Your task to perform on an android device: Look up the best rated desk lamps on IKEA Image 0: 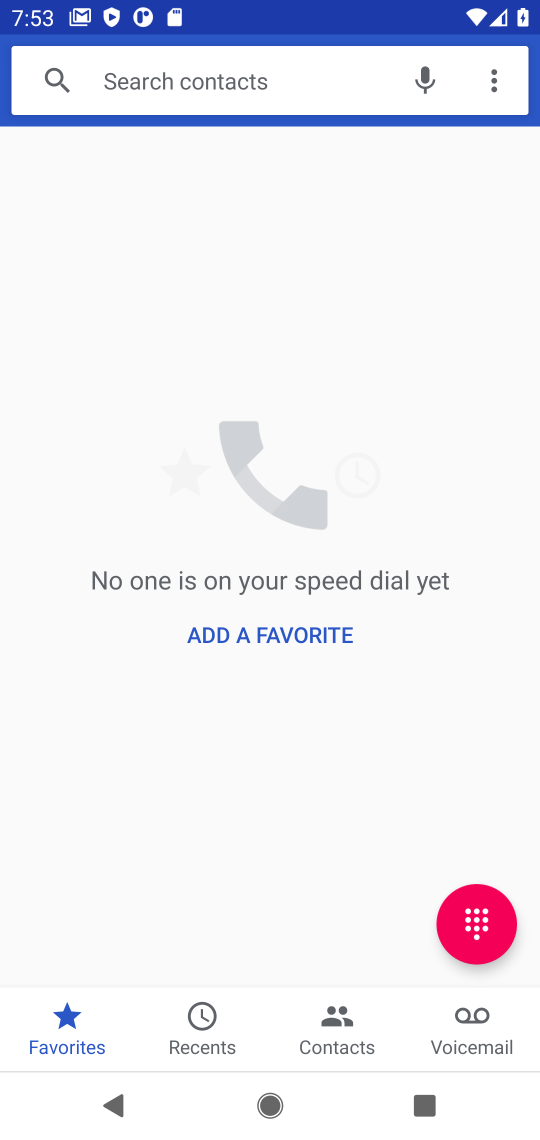
Step 0: press home button
Your task to perform on an android device: Look up the best rated desk lamps on IKEA Image 1: 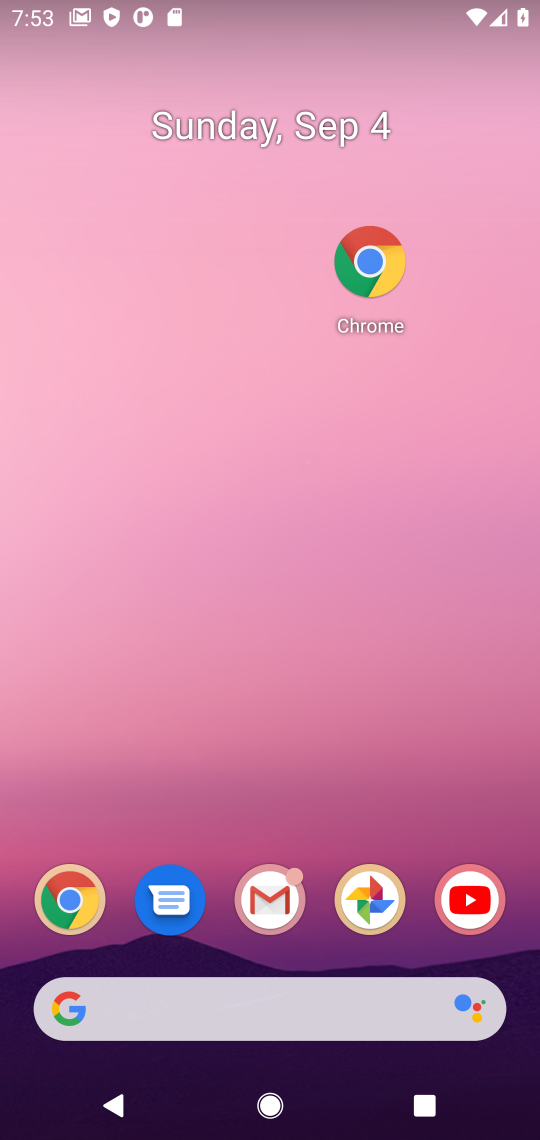
Step 1: drag from (303, 962) to (235, 65)
Your task to perform on an android device: Look up the best rated desk lamps on IKEA Image 2: 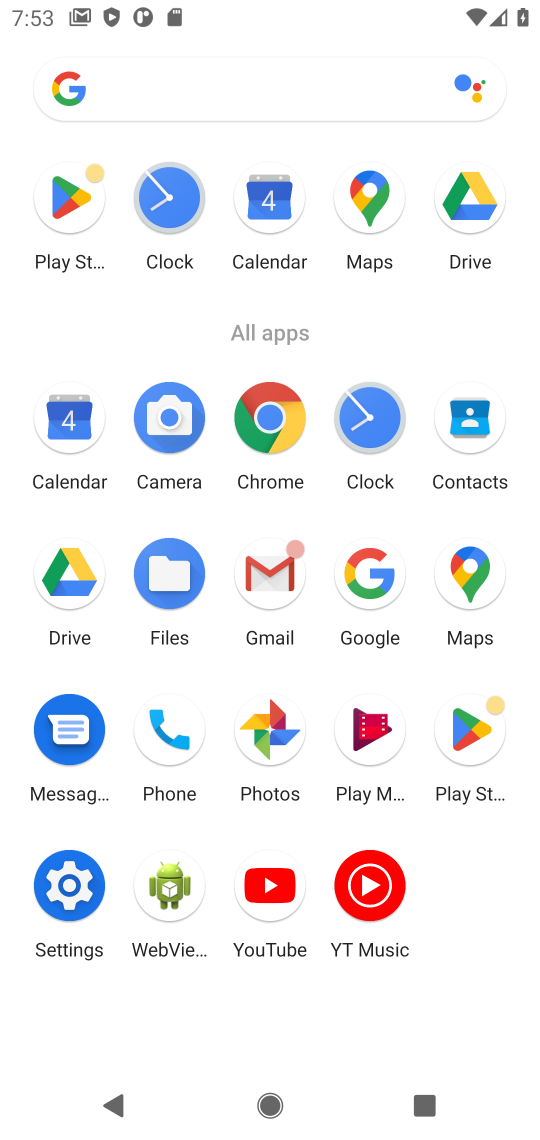
Step 2: click (248, 403)
Your task to perform on an android device: Look up the best rated desk lamps on IKEA Image 3: 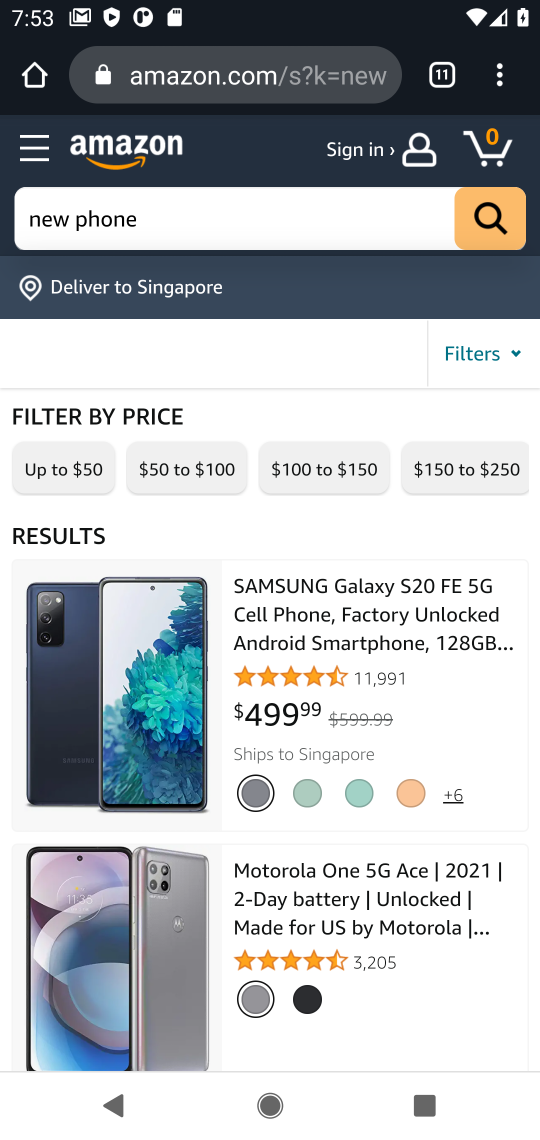
Step 3: click (439, 69)
Your task to perform on an android device: Look up the best rated desk lamps on IKEA Image 4: 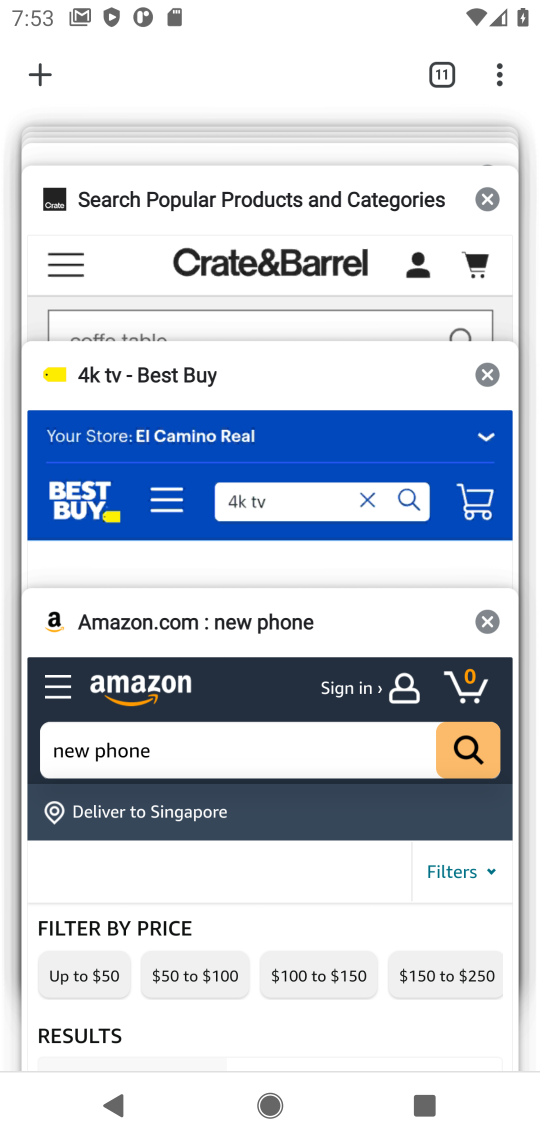
Step 4: click (40, 81)
Your task to perform on an android device: Look up the best rated desk lamps on IKEA Image 5: 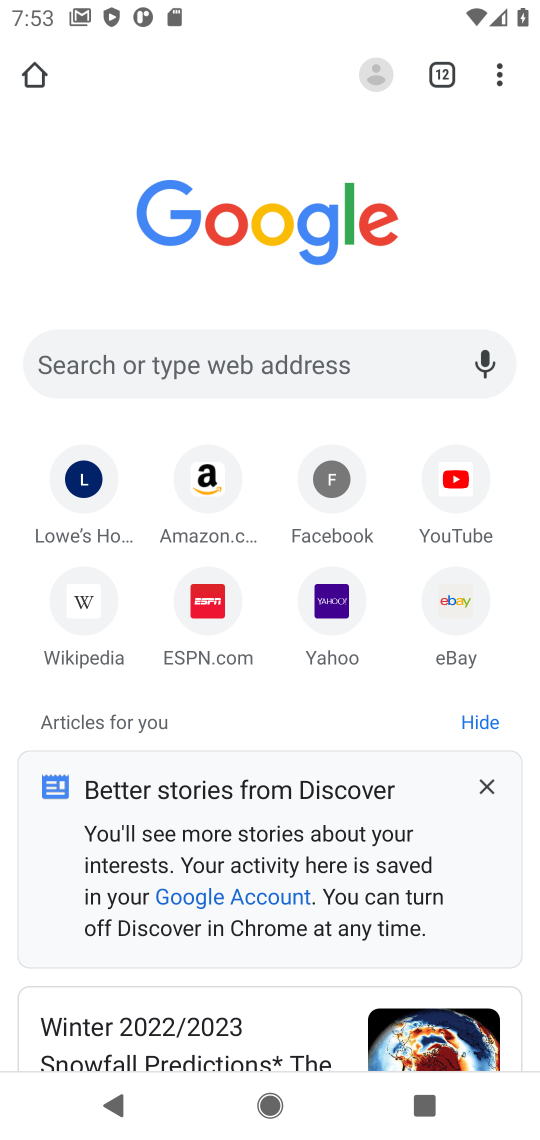
Step 5: click (264, 355)
Your task to perform on an android device: Look up the best rated desk lamps on IKEA Image 6: 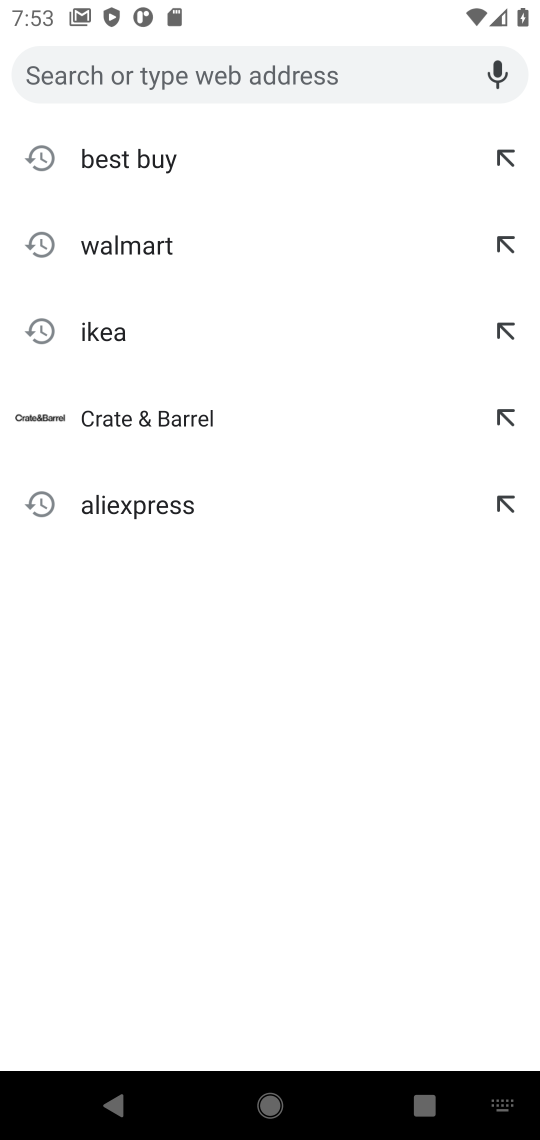
Step 6: type "Ikea"
Your task to perform on an android device: Look up the best rated desk lamps on IKEA Image 7: 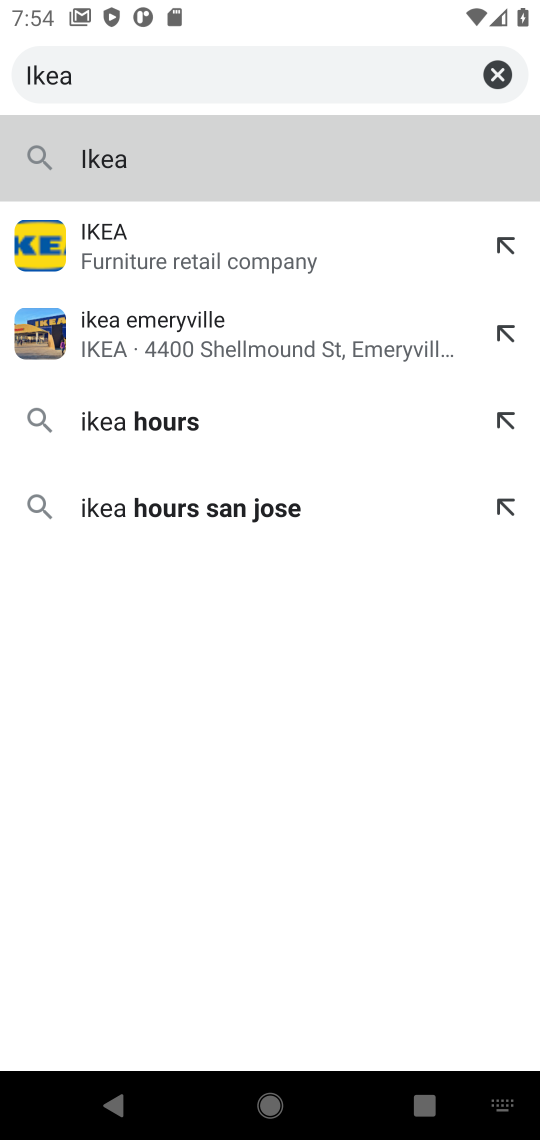
Step 7: click (209, 152)
Your task to perform on an android device: Look up the best rated desk lamps on IKEA Image 8: 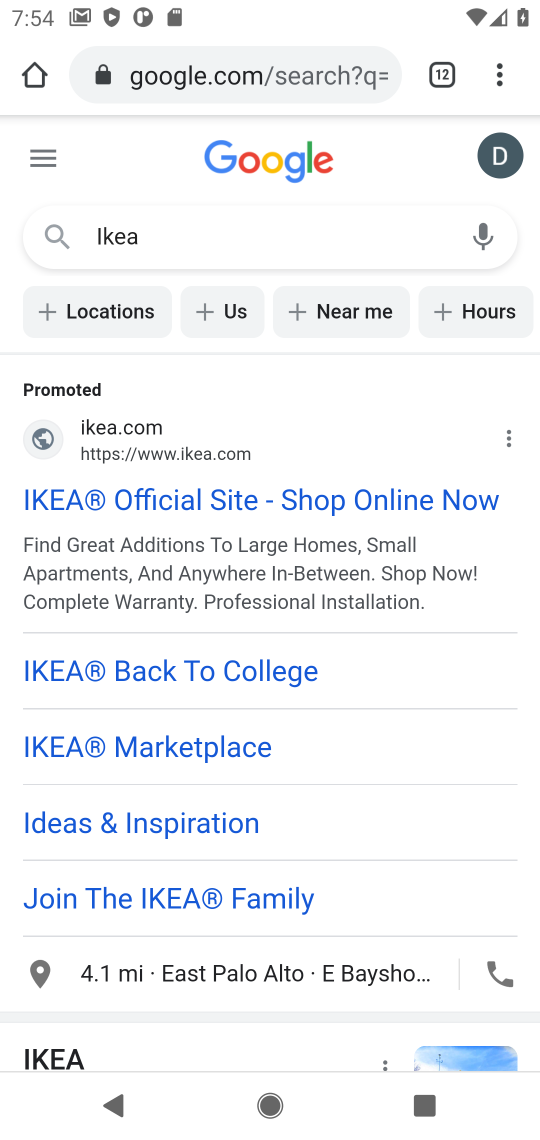
Step 8: click (264, 512)
Your task to perform on an android device: Look up the best rated desk lamps on IKEA Image 9: 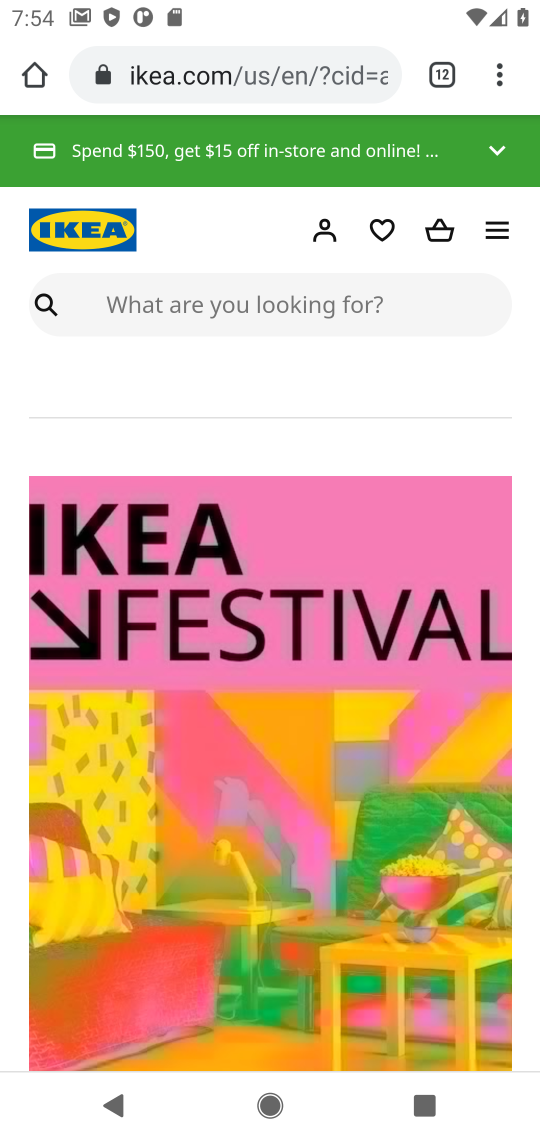
Step 9: click (200, 294)
Your task to perform on an android device: Look up the best rated desk lamps on IKEA Image 10: 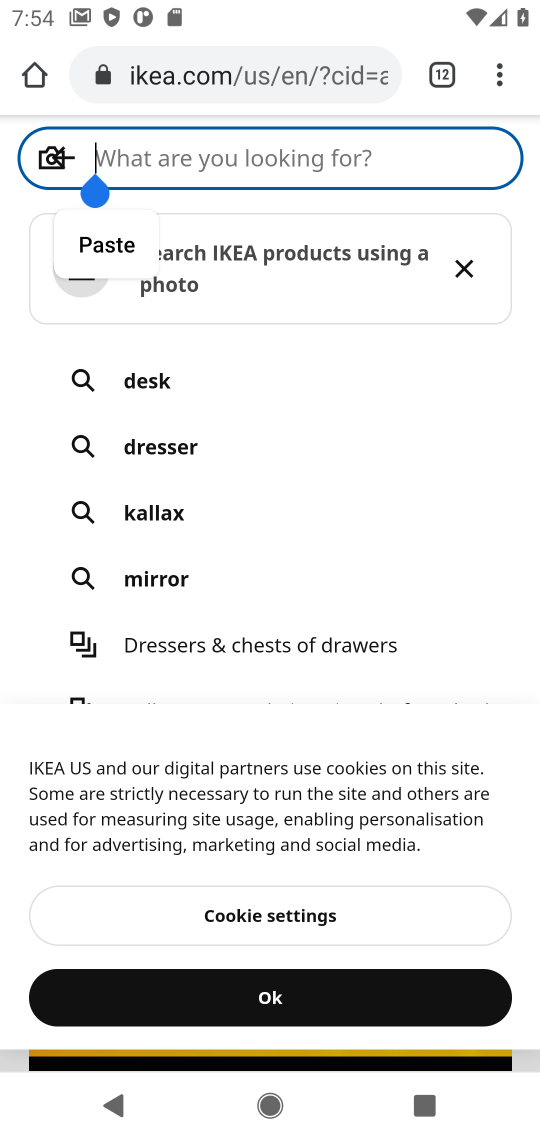
Step 10: type "the best rated desk lamps "
Your task to perform on an android device: Look up the best rated desk lamps on IKEA Image 11: 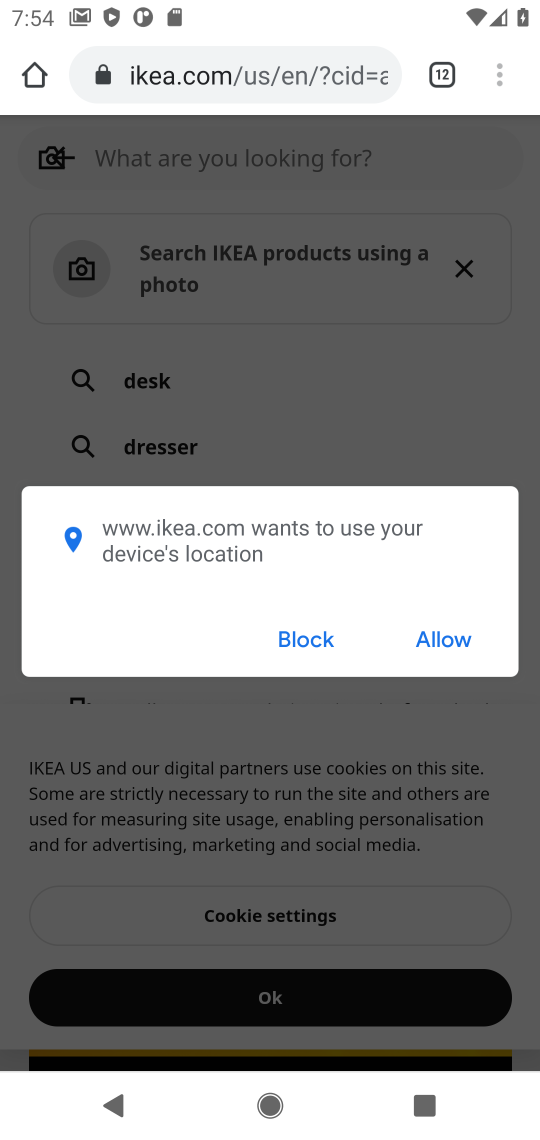
Step 11: click (317, 641)
Your task to perform on an android device: Look up the best rated desk lamps on IKEA Image 12: 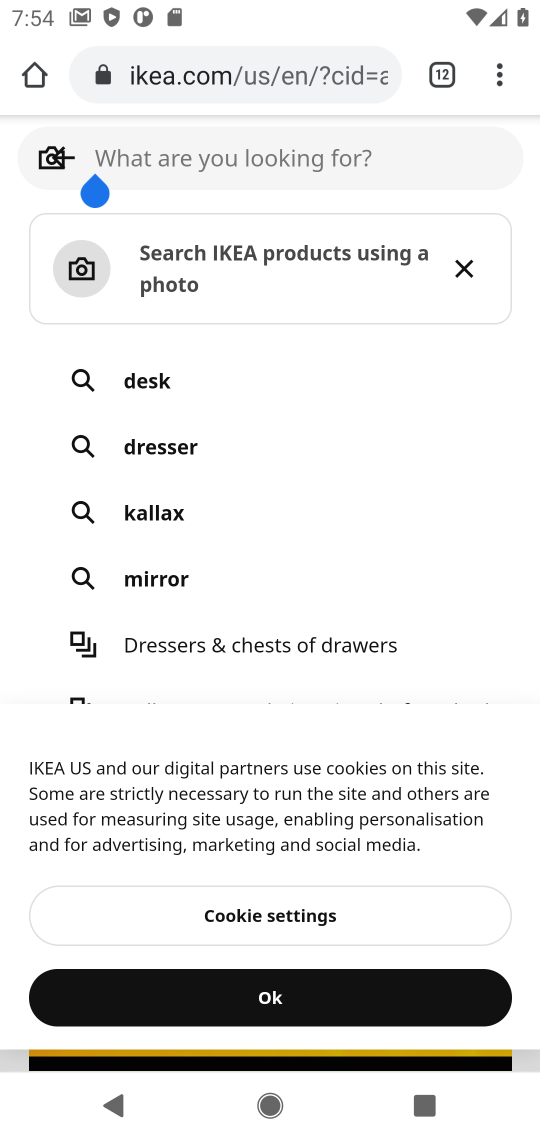
Step 12: click (206, 175)
Your task to perform on an android device: Look up the best rated desk lamps on IKEA Image 13: 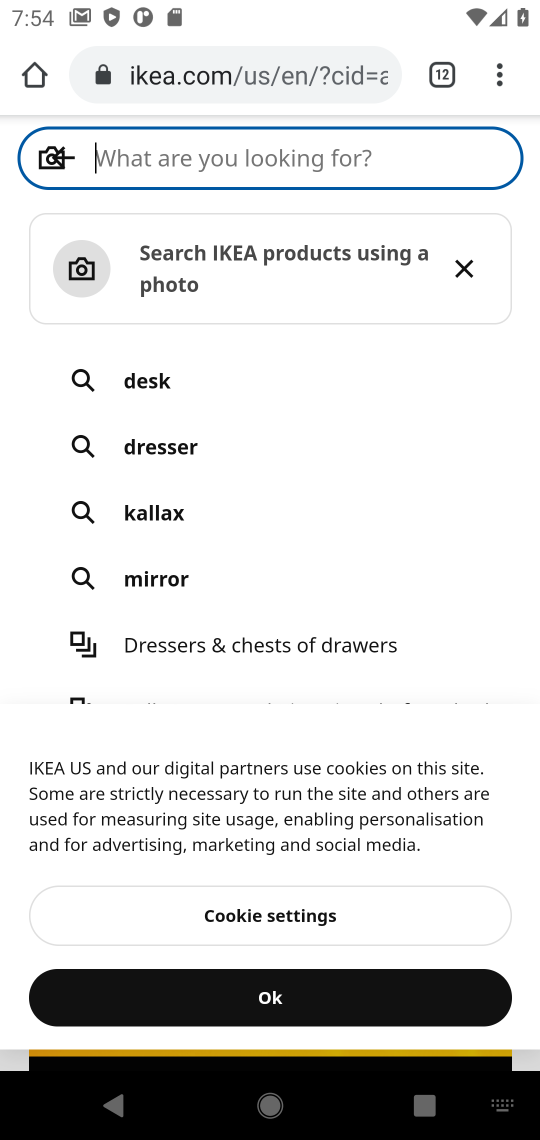
Step 13: drag from (303, 1135) to (86, 1123)
Your task to perform on an android device: Look up the best rated desk lamps on IKEA Image 14: 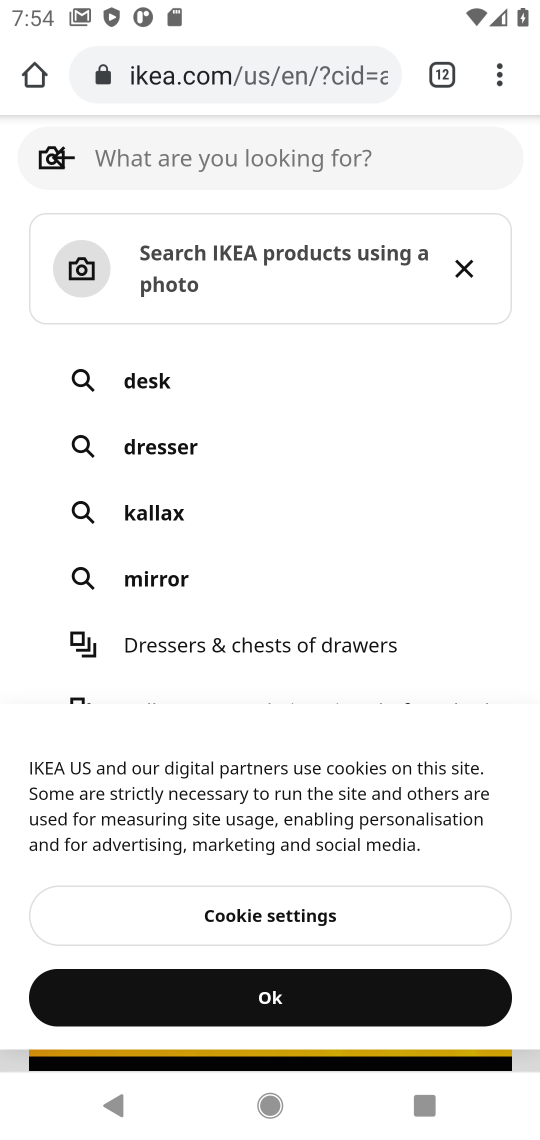
Step 14: click (293, 152)
Your task to perform on an android device: Look up the best rated desk lamps on IKEA Image 15: 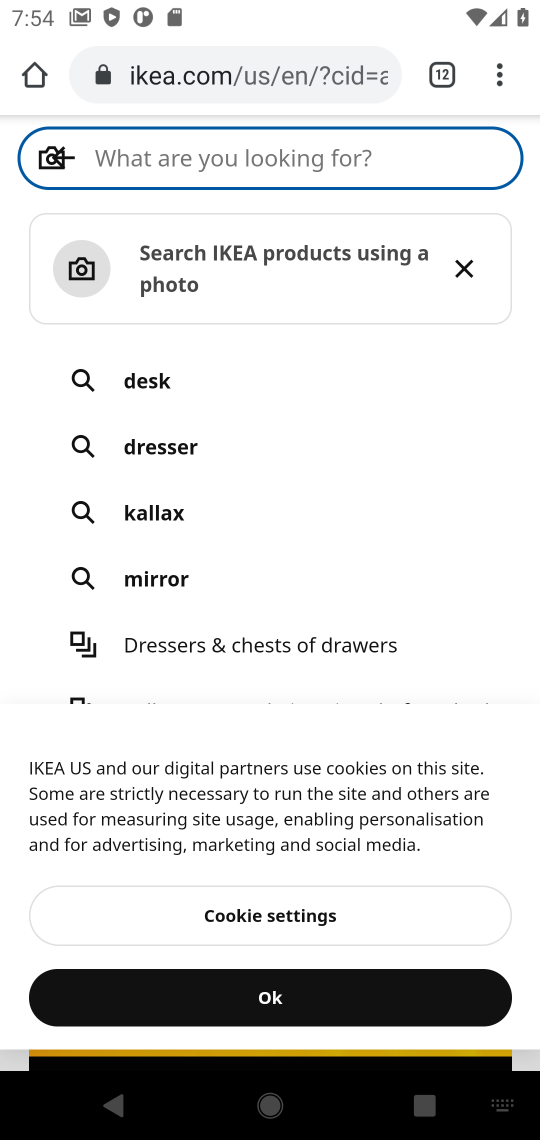
Step 15: type "the best rated desk lamps"
Your task to perform on an android device: Look up the best rated desk lamps on IKEA Image 16: 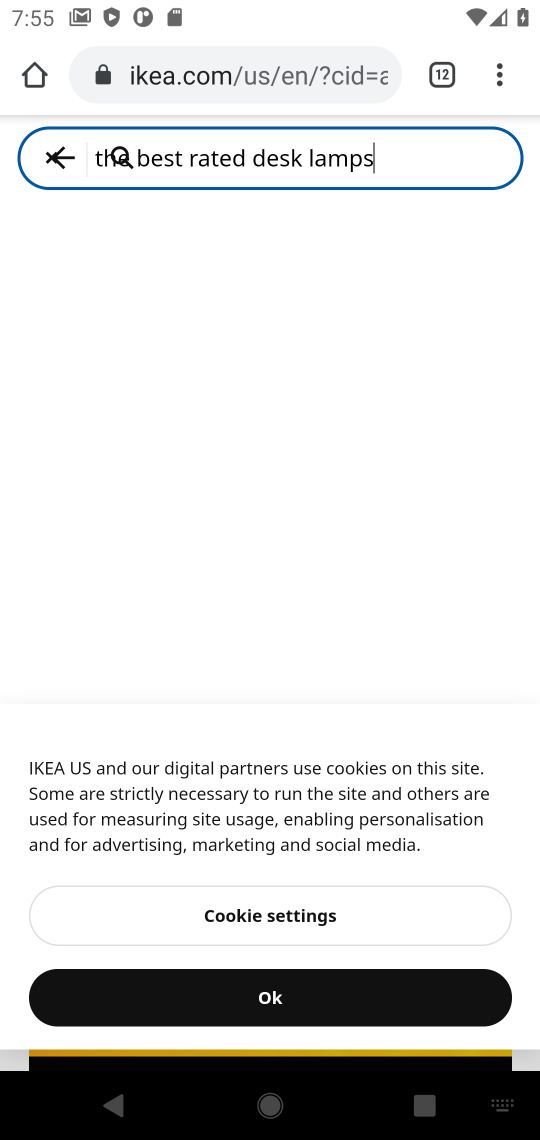
Step 16: click (316, 1003)
Your task to perform on an android device: Look up the best rated desk lamps on IKEA Image 17: 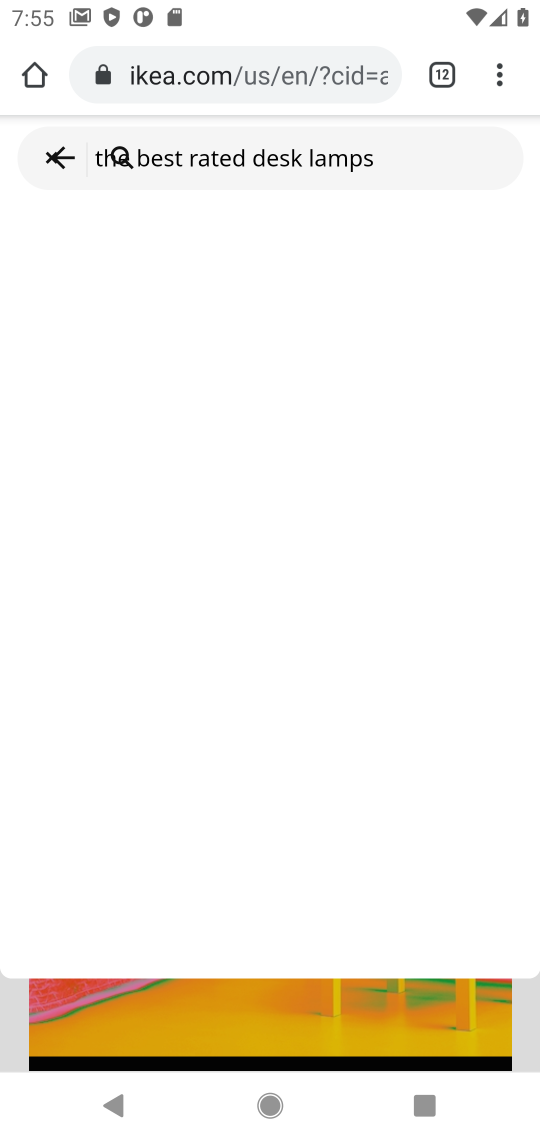
Step 17: drag from (316, 1003) to (92, 398)
Your task to perform on an android device: Look up the best rated desk lamps on IKEA Image 18: 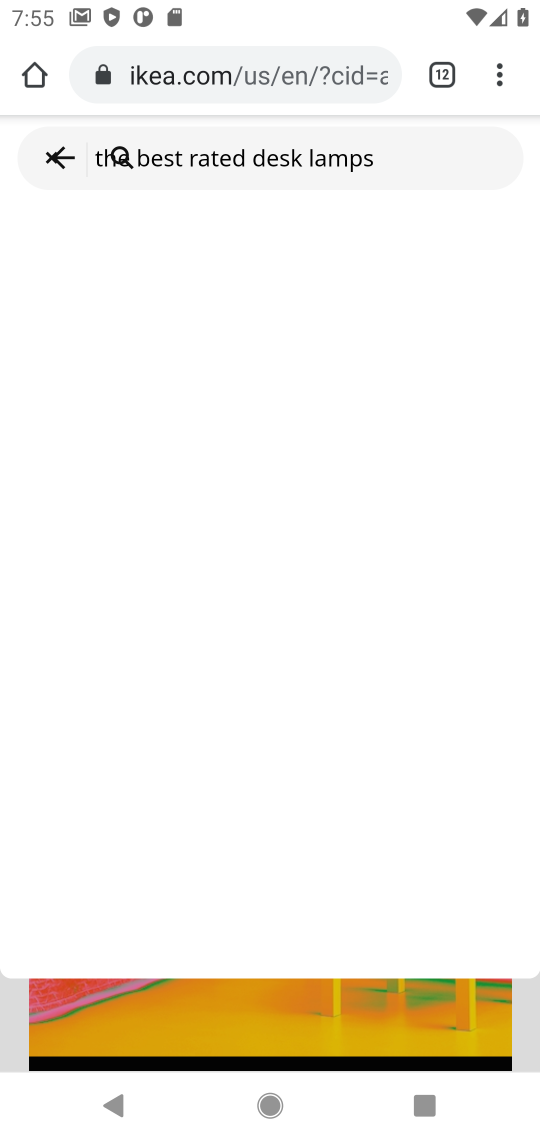
Step 18: click (118, 153)
Your task to perform on an android device: Look up the best rated desk lamps on IKEA Image 19: 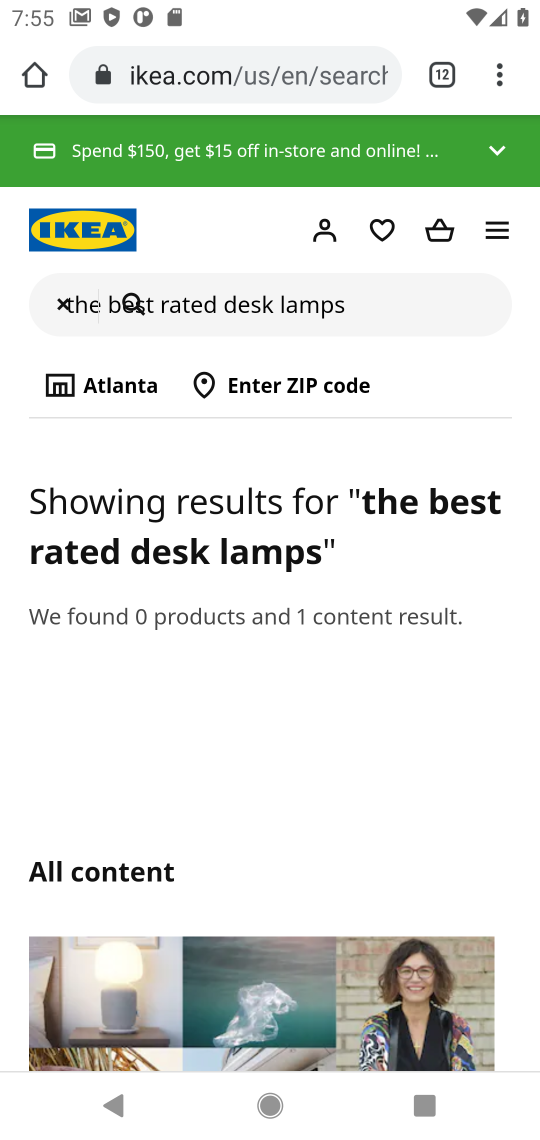
Step 19: task complete